Your task to perform on an android device: turn notification dots on Image 0: 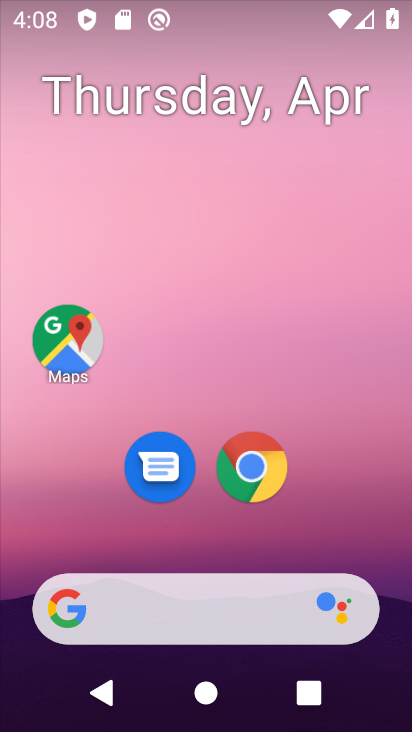
Step 0: click (254, 454)
Your task to perform on an android device: turn notification dots on Image 1: 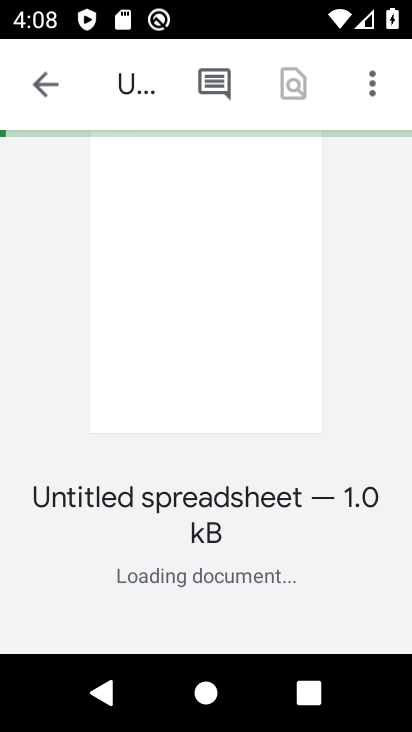
Step 1: press home button
Your task to perform on an android device: turn notification dots on Image 2: 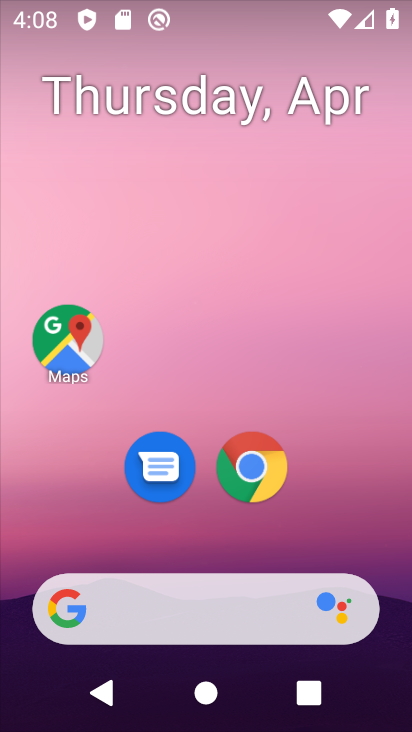
Step 2: drag from (266, 281) to (286, 0)
Your task to perform on an android device: turn notification dots on Image 3: 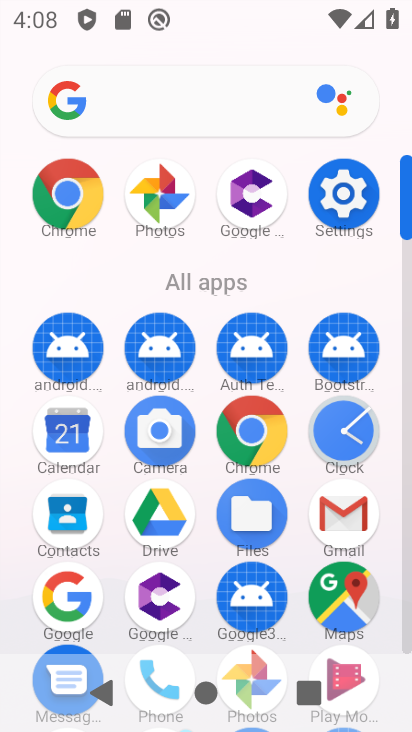
Step 3: click (334, 222)
Your task to perform on an android device: turn notification dots on Image 4: 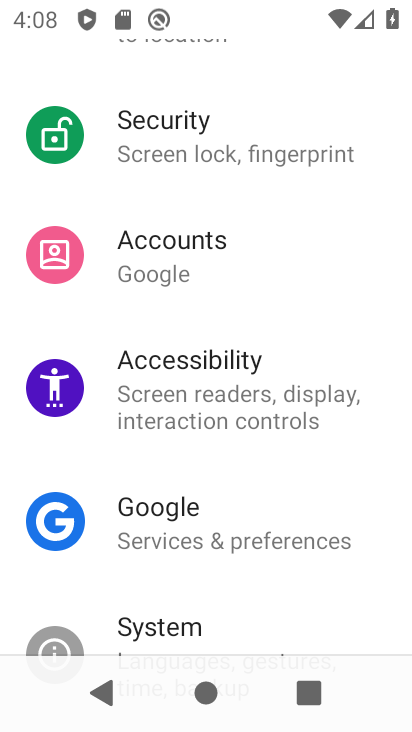
Step 4: drag from (240, 260) to (209, 632)
Your task to perform on an android device: turn notification dots on Image 5: 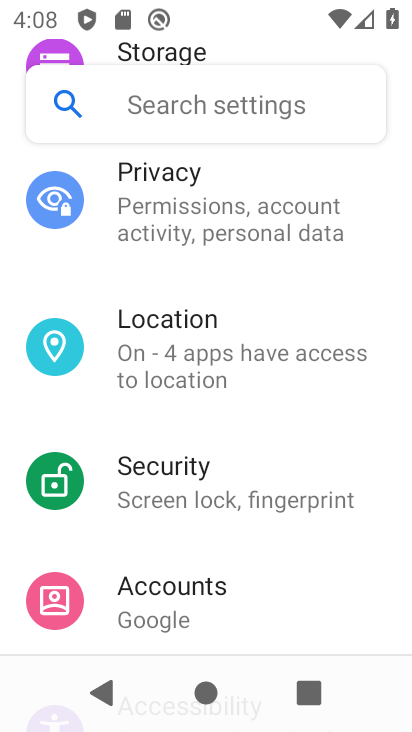
Step 5: drag from (216, 226) to (204, 551)
Your task to perform on an android device: turn notification dots on Image 6: 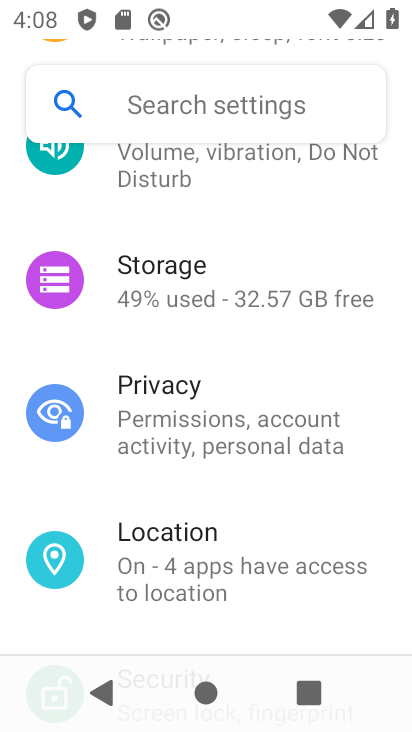
Step 6: drag from (229, 249) to (239, 712)
Your task to perform on an android device: turn notification dots on Image 7: 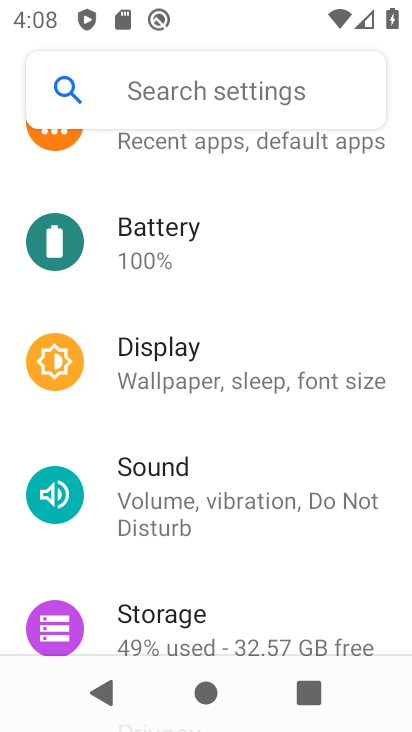
Step 7: drag from (229, 217) to (237, 629)
Your task to perform on an android device: turn notification dots on Image 8: 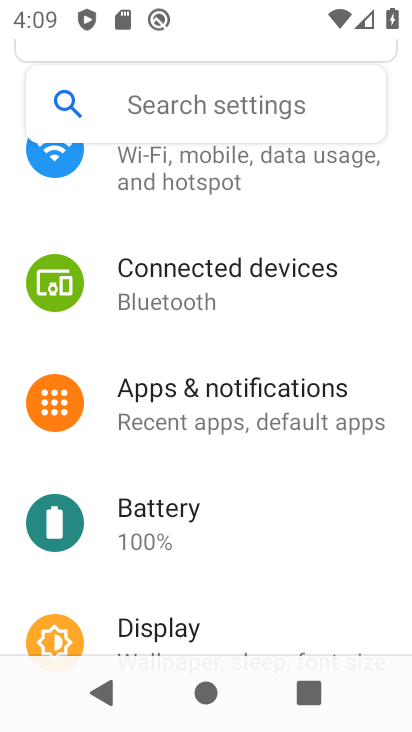
Step 8: click (231, 420)
Your task to perform on an android device: turn notification dots on Image 9: 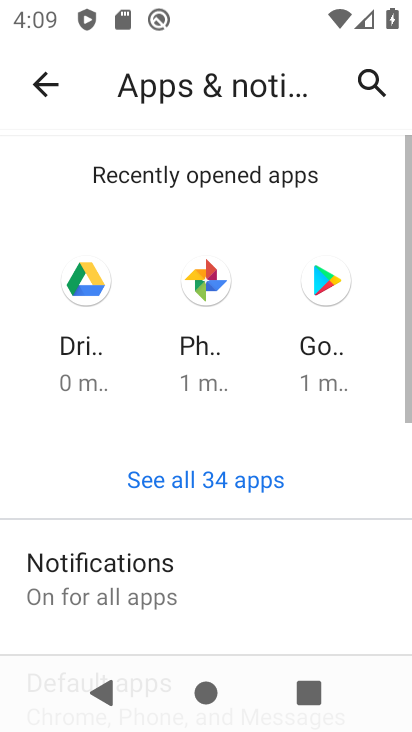
Step 9: click (128, 582)
Your task to perform on an android device: turn notification dots on Image 10: 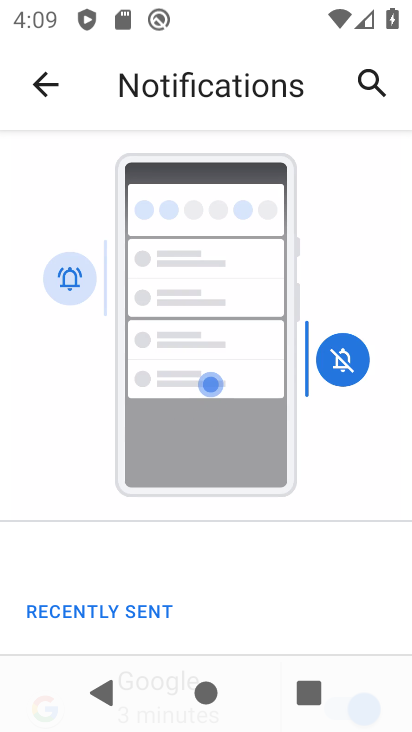
Step 10: drag from (156, 568) to (229, 188)
Your task to perform on an android device: turn notification dots on Image 11: 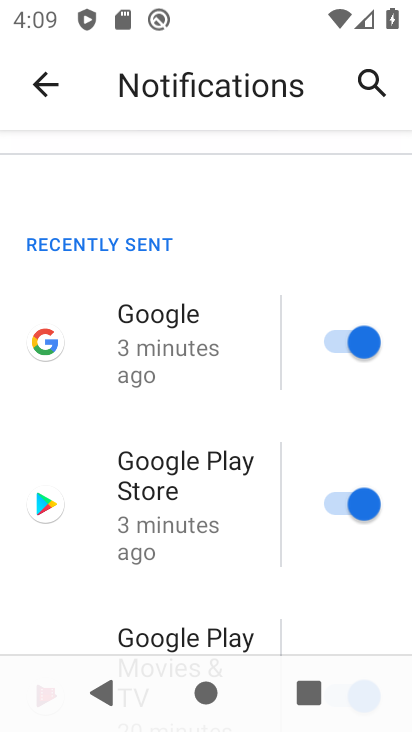
Step 11: drag from (146, 527) to (233, 123)
Your task to perform on an android device: turn notification dots on Image 12: 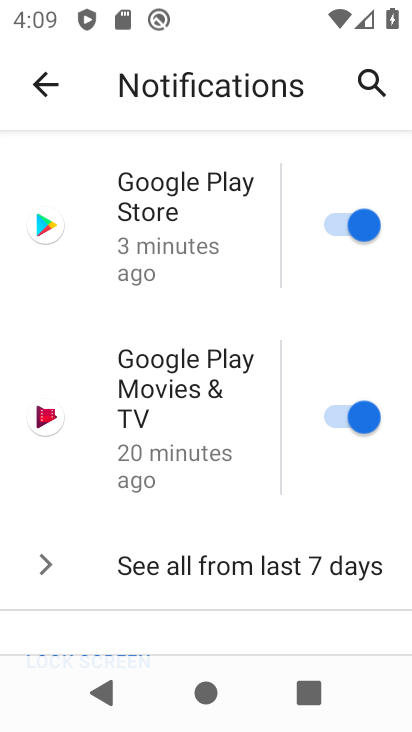
Step 12: drag from (178, 519) to (261, 171)
Your task to perform on an android device: turn notification dots on Image 13: 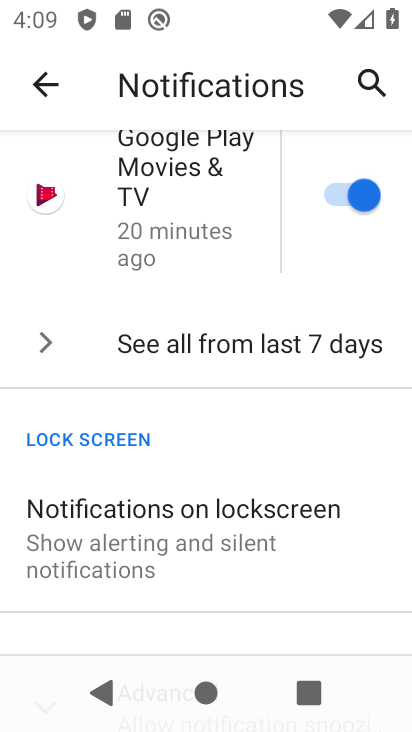
Step 13: click (192, 545)
Your task to perform on an android device: turn notification dots on Image 14: 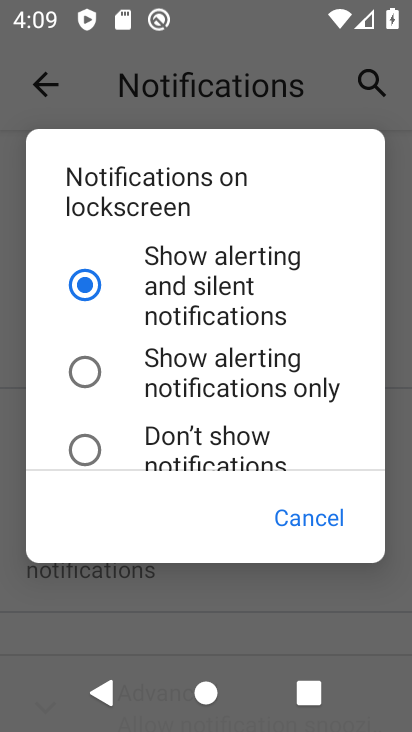
Step 14: drag from (134, 443) to (163, 285)
Your task to perform on an android device: turn notification dots on Image 15: 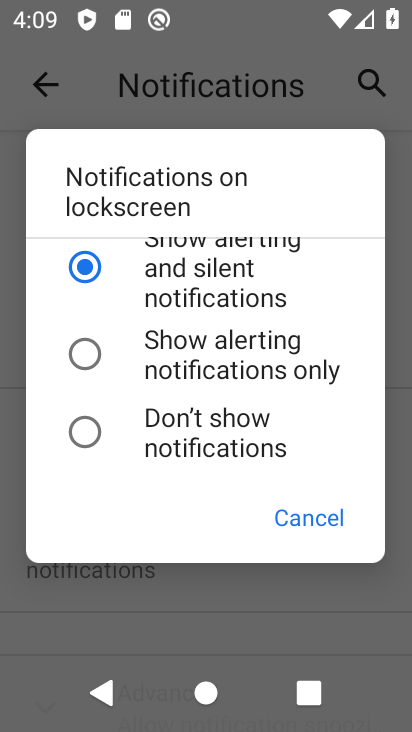
Step 15: click (331, 523)
Your task to perform on an android device: turn notification dots on Image 16: 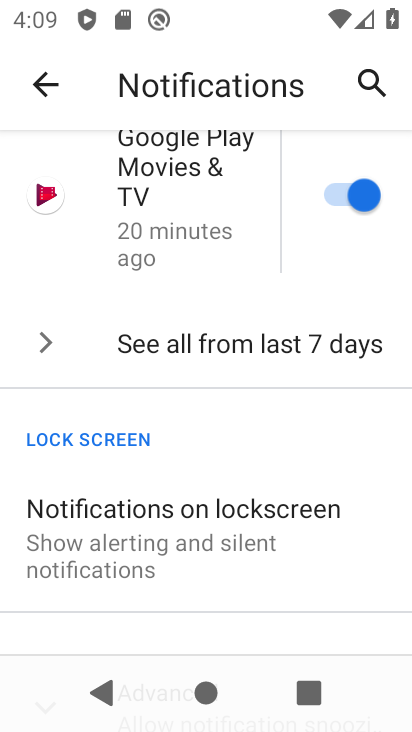
Step 16: drag from (270, 605) to (302, 304)
Your task to perform on an android device: turn notification dots on Image 17: 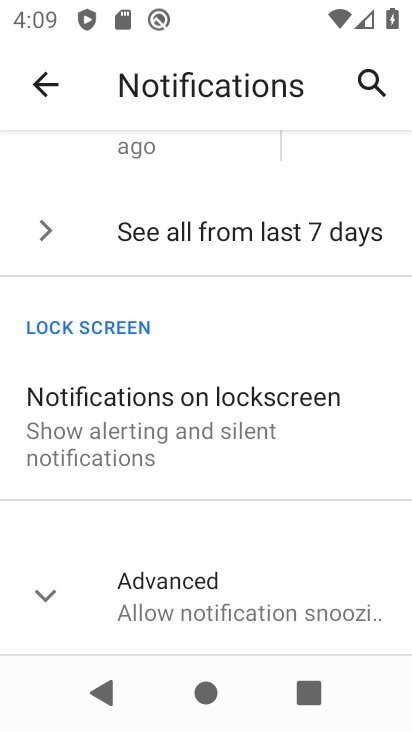
Step 17: click (188, 584)
Your task to perform on an android device: turn notification dots on Image 18: 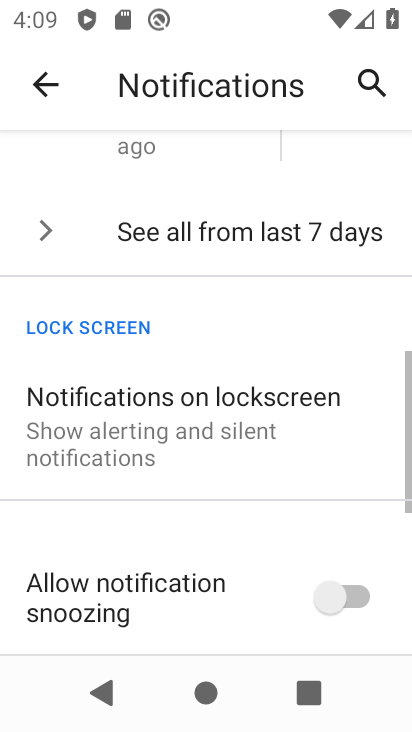
Step 18: task complete